Your task to perform on an android device: turn on the 24-hour format for clock Image 0: 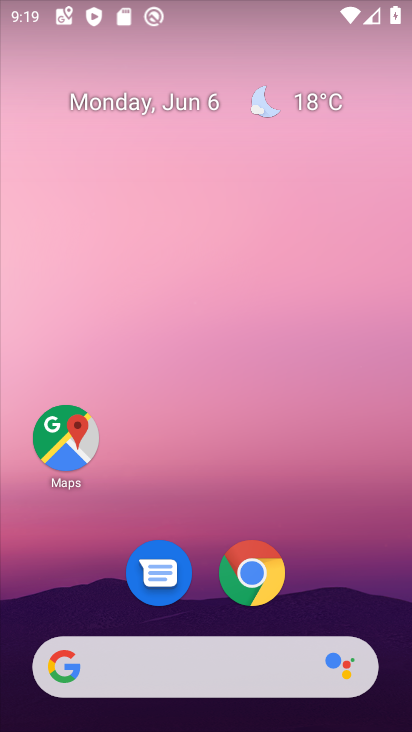
Step 0: drag from (379, 616) to (207, 136)
Your task to perform on an android device: turn on the 24-hour format for clock Image 1: 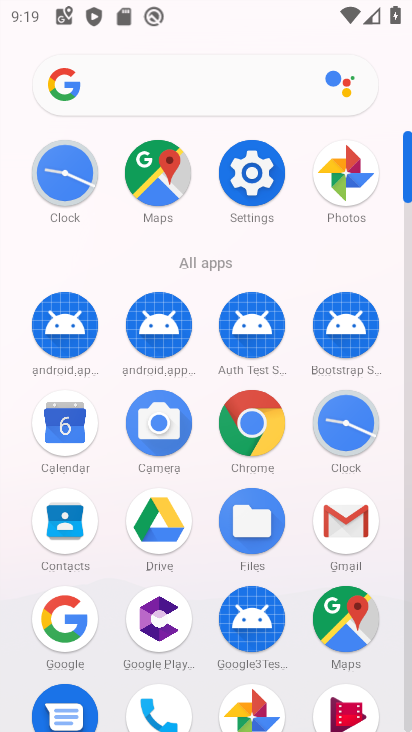
Step 1: click (368, 423)
Your task to perform on an android device: turn on the 24-hour format for clock Image 2: 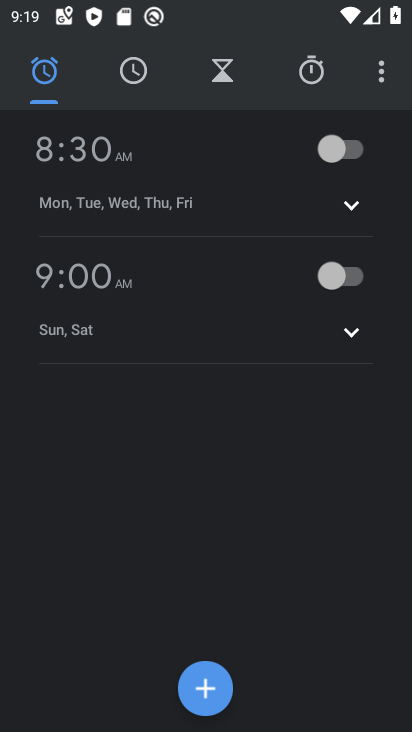
Step 2: click (372, 71)
Your task to perform on an android device: turn on the 24-hour format for clock Image 3: 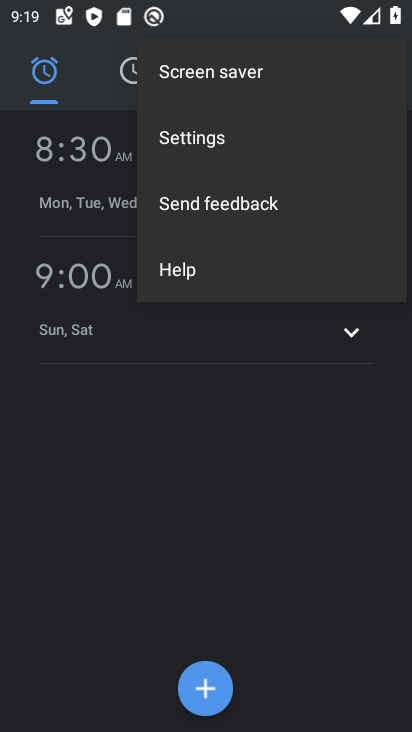
Step 3: click (269, 136)
Your task to perform on an android device: turn on the 24-hour format for clock Image 4: 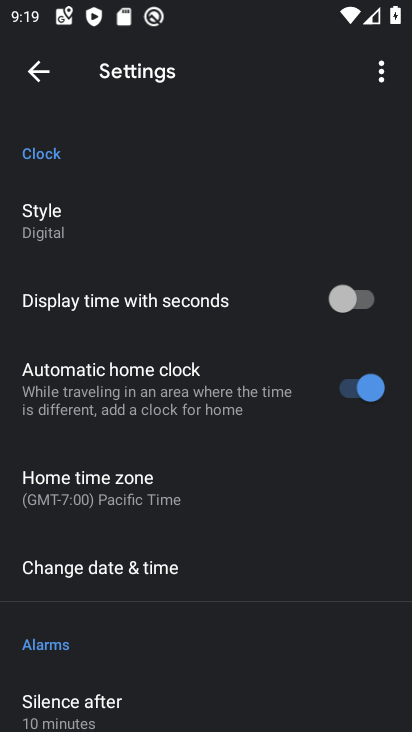
Step 4: drag from (235, 671) to (177, 481)
Your task to perform on an android device: turn on the 24-hour format for clock Image 5: 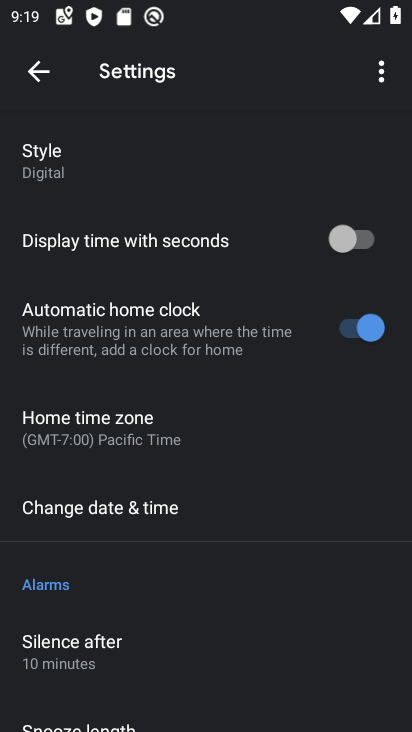
Step 5: click (170, 521)
Your task to perform on an android device: turn on the 24-hour format for clock Image 6: 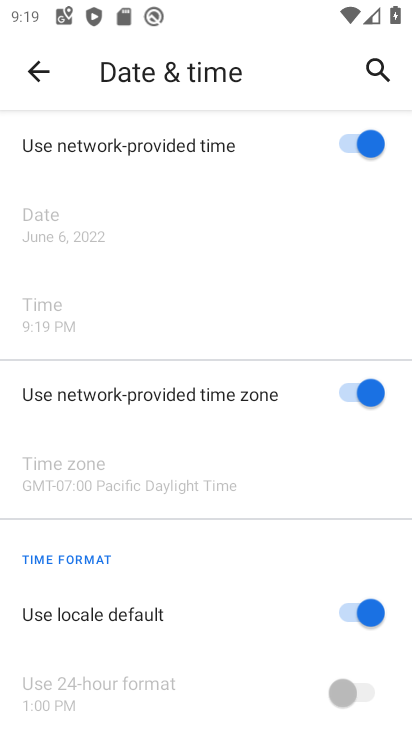
Step 6: click (360, 615)
Your task to perform on an android device: turn on the 24-hour format for clock Image 7: 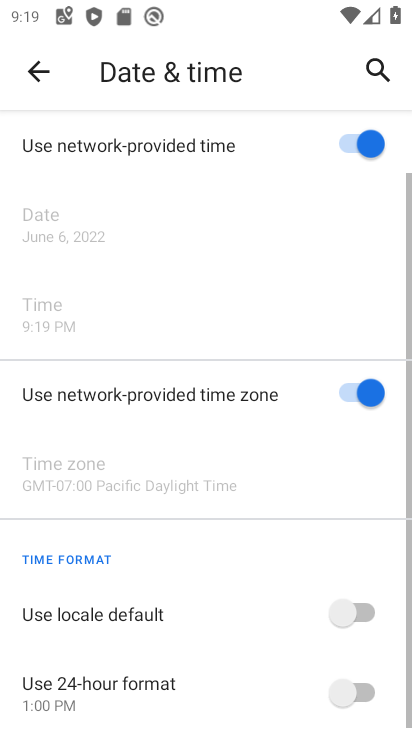
Step 7: click (366, 689)
Your task to perform on an android device: turn on the 24-hour format for clock Image 8: 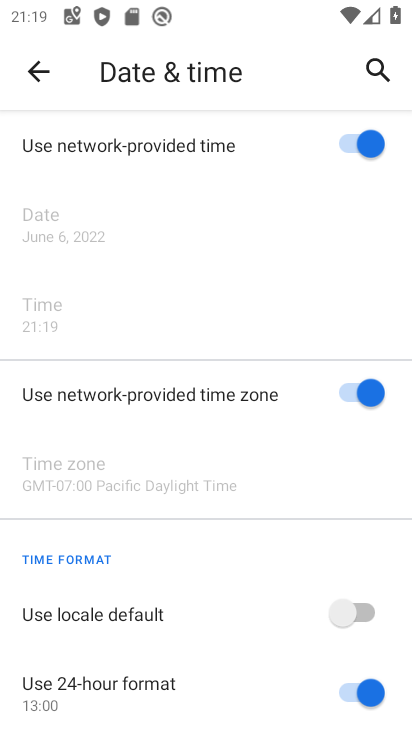
Step 8: task complete